Your task to perform on an android device: move an email to a new category in the gmail app Image 0: 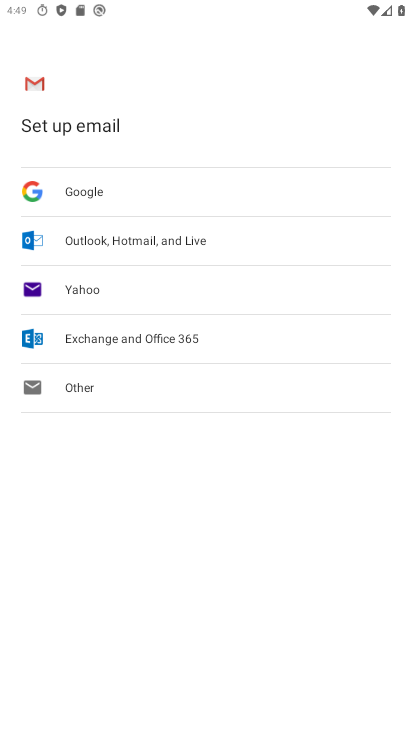
Step 0: drag from (182, 642) to (228, 4)
Your task to perform on an android device: move an email to a new category in the gmail app Image 1: 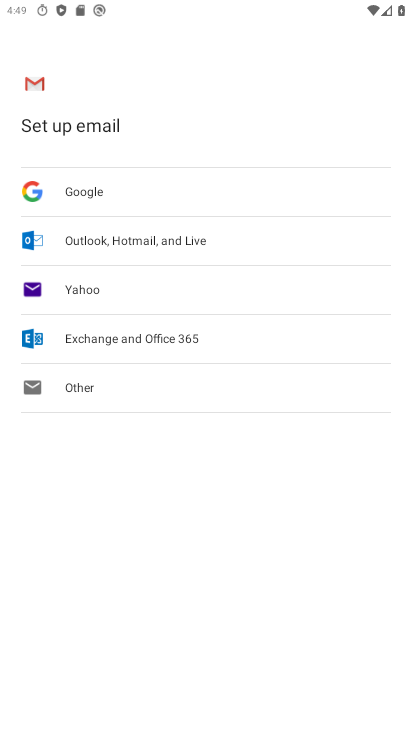
Step 1: press home button
Your task to perform on an android device: move an email to a new category in the gmail app Image 2: 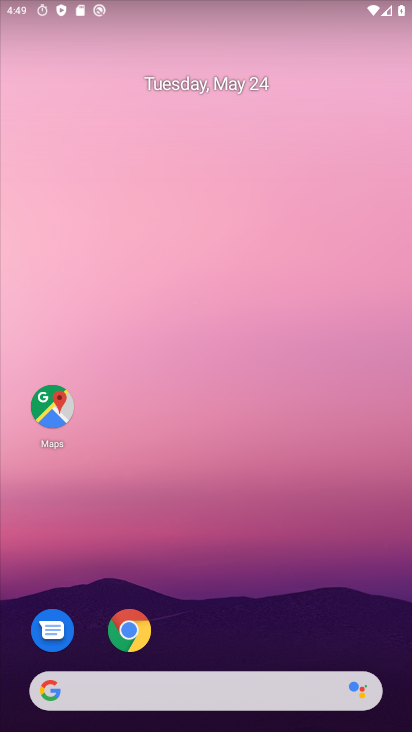
Step 2: drag from (92, 0) to (186, 82)
Your task to perform on an android device: move an email to a new category in the gmail app Image 3: 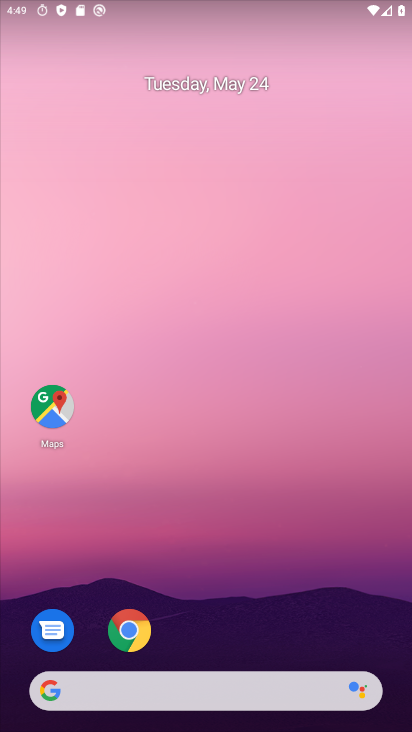
Step 3: drag from (188, 625) to (209, 254)
Your task to perform on an android device: move an email to a new category in the gmail app Image 4: 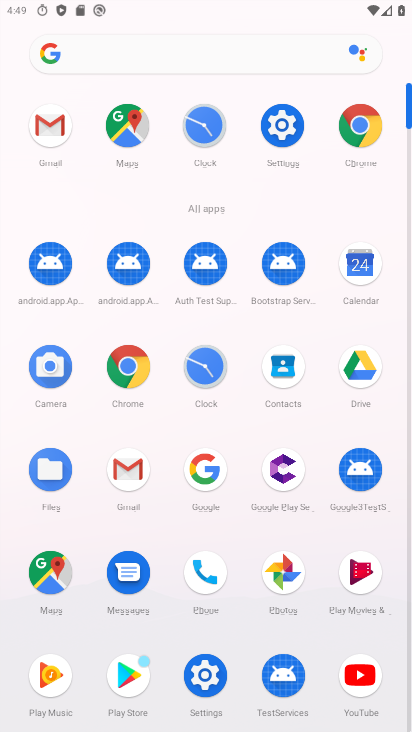
Step 4: click (48, 129)
Your task to perform on an android device: move an email to a new category in the gmail app Image 5: 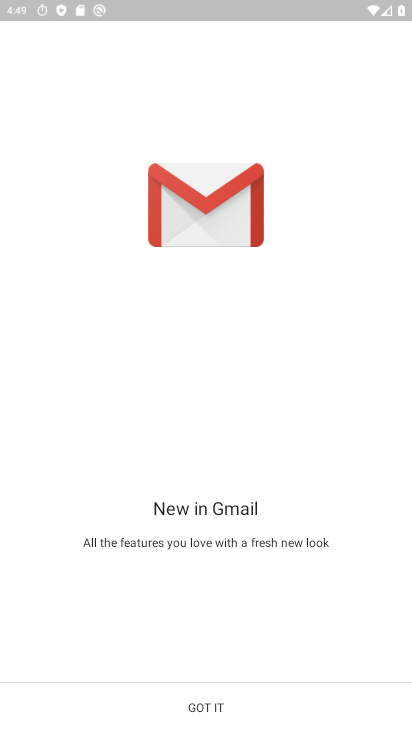
Step 5: click (177, 715)
Your task to perform on an android device: move an email to a new category in the gmail app Image 6: 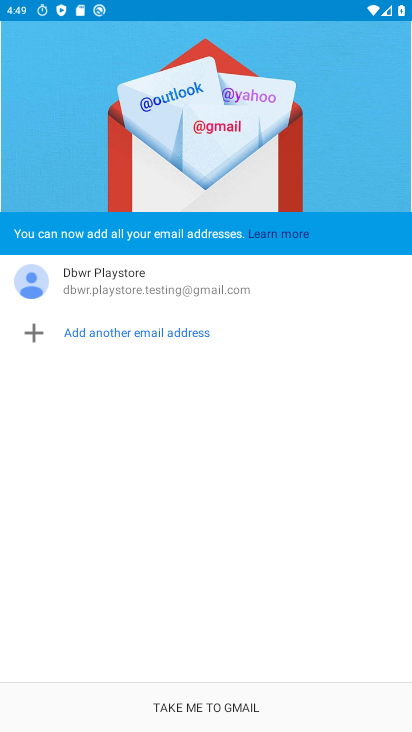
Step 6: click (177, 715)
Your task to perform on an android device: move an email to a new category in the gmail app Image 7: 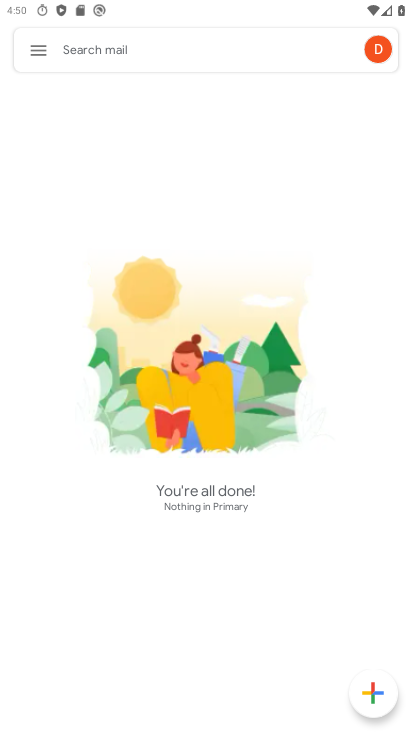
Step 7: task complete